Your task to perform on an android device: Open notification settings Image 0: 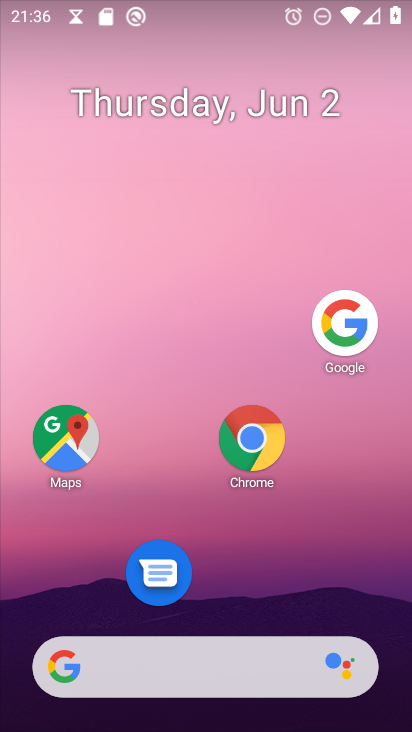
Step 0: press home button
Your task to perform on an android device: Open notification settings Image 1: 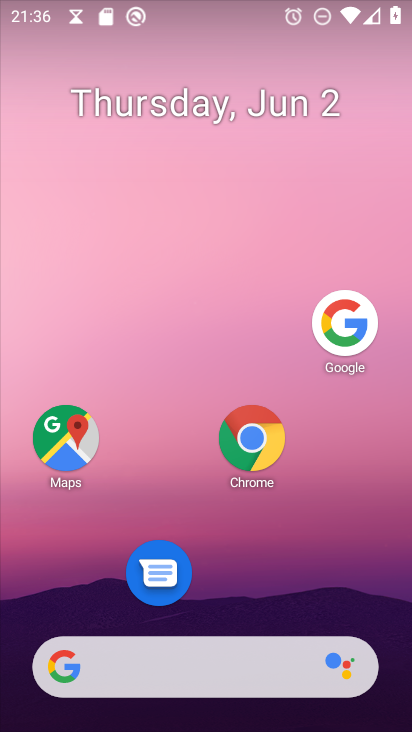
Step 1: drag from (163, 680) to (234, 190)
Your task to perform on an android device: Open notification settings Image 2: 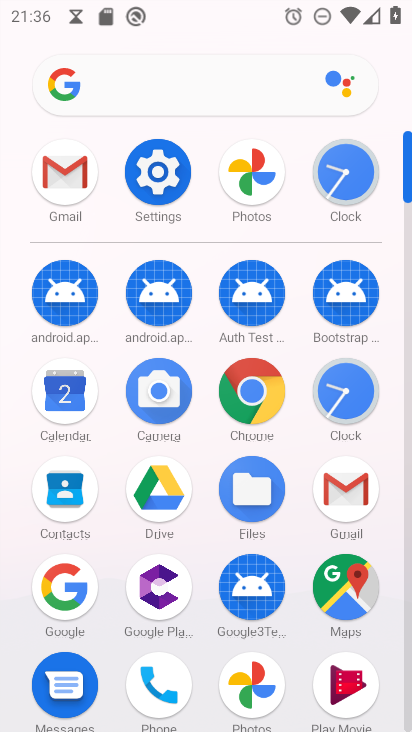
Step 2: click (168, 177)
Your task to perform on an android device: Open notification settings Image 3: 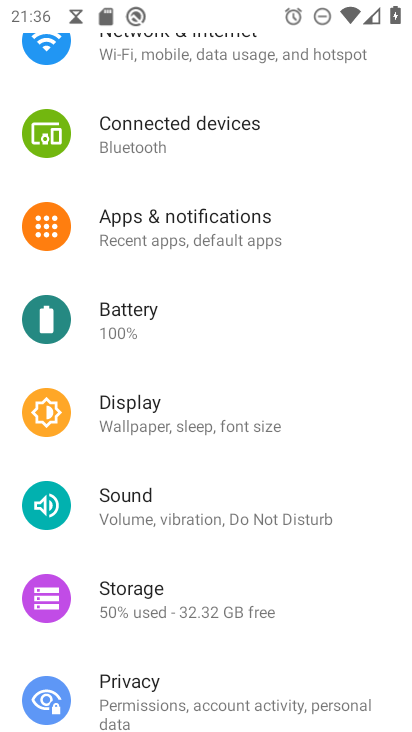
Step 3: click (218, 224)
Your task to perform on an android device: Open notification settings Image 4: 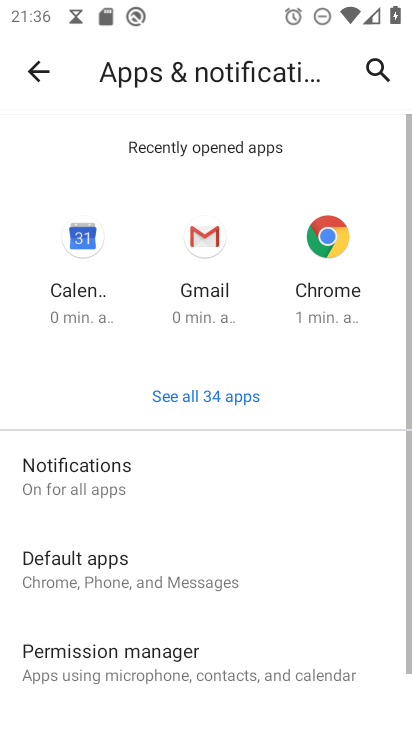
Step 4: click (85, 476)
Your task to perform on an android device: Open notification settings Image 5: 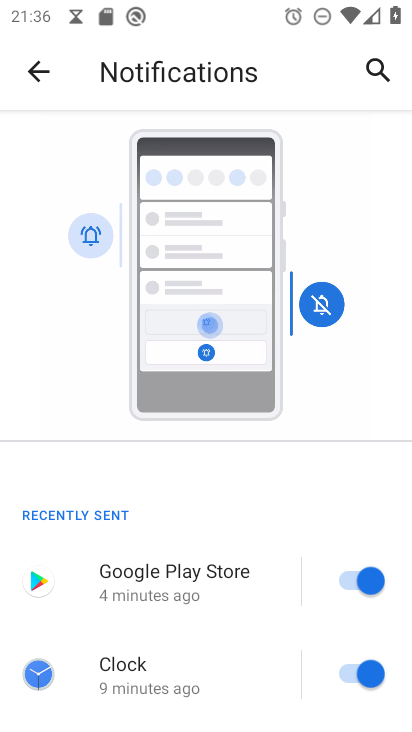
Step 5: task complete